Your task to perform on an android device: check storage Image 0: 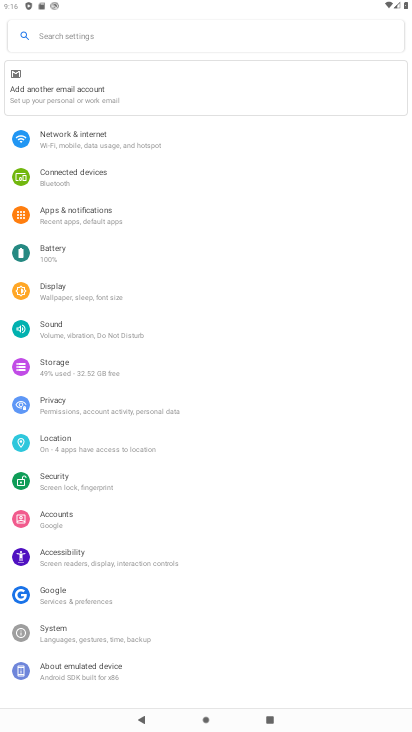
Step 0: click (96, 365)
Your task to perform on an android device: check storage Image 1: 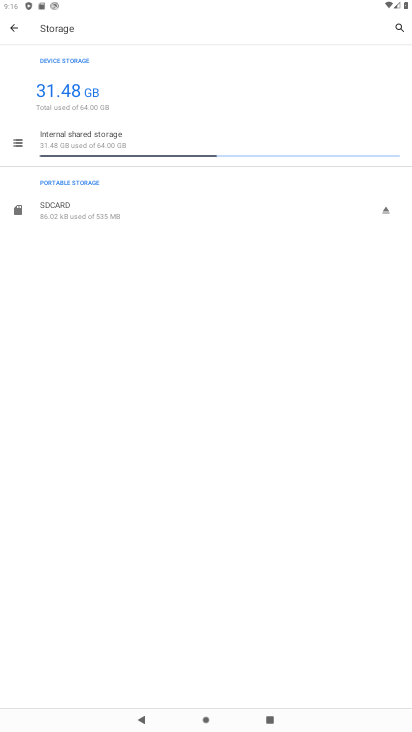
Step 1: click (145, 157)
Your task to perform on an android device: check storage Image 2: 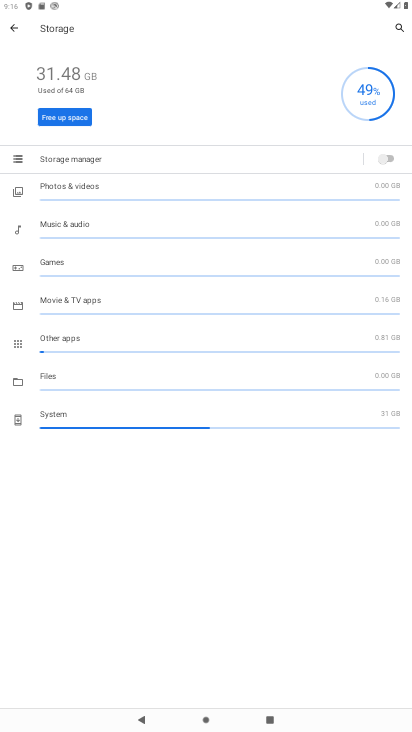
Step 2: task complete